Your task to perform on an android device: Search for sushi restaurants on Maps Image 0: 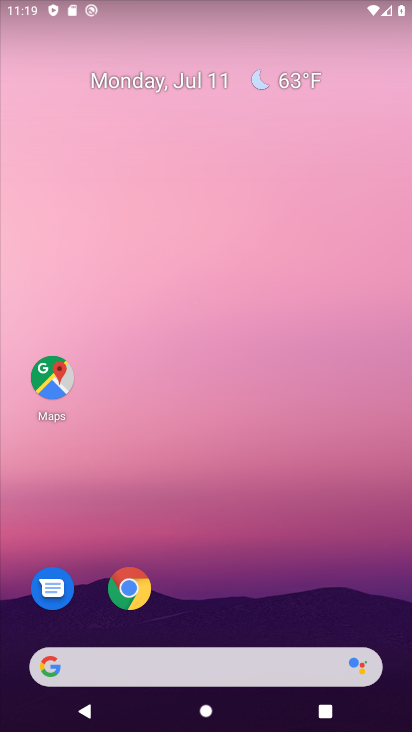
Step 0: drag from (243, 702) to (237, 177)
Your task to perform on an android device: Search for sushi restaurants on Maps Image 1: 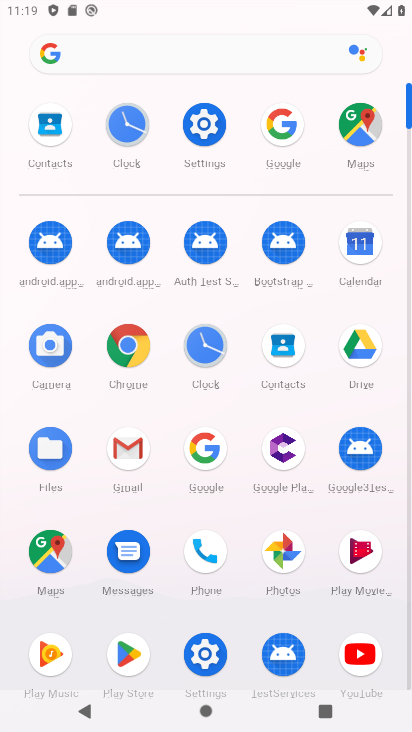
Step 1: click (55, 548)
Your task to perform on an android device: Search for sushi restaurants on Maps Image 2: 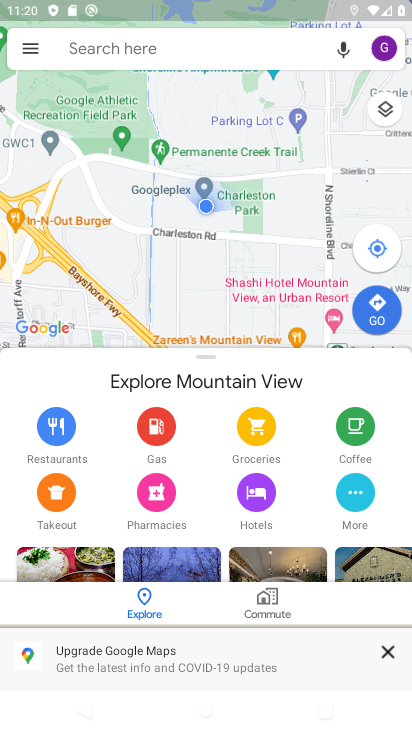
Step 2: click (199, 48)
Your task to perform on an android device: Search for sushi restaurants on Maps Image 3: 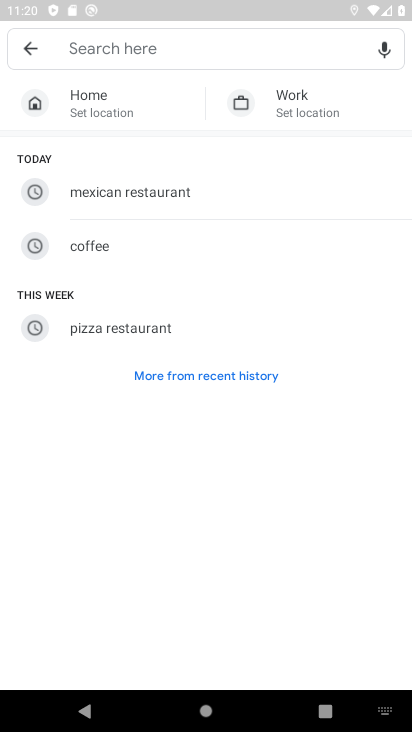
Step 3: type "sushi restaurants"
Your task to perform on an android device: Search for sushi restaurants on Maps Image 4: 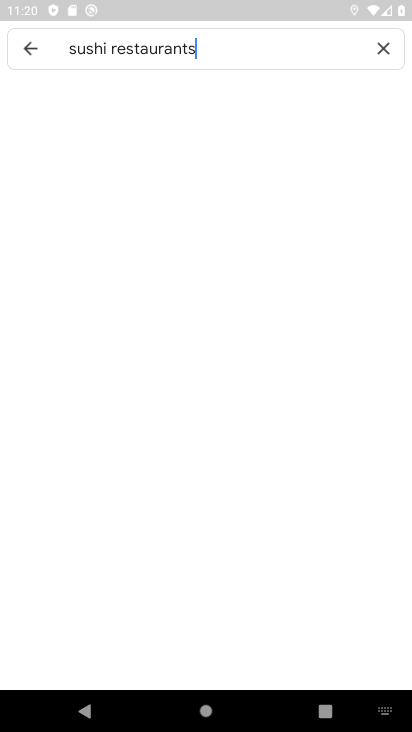
Step 4: type ""
Your task to perform on an android device: Search for sushi restaurants on Maps Image 5: 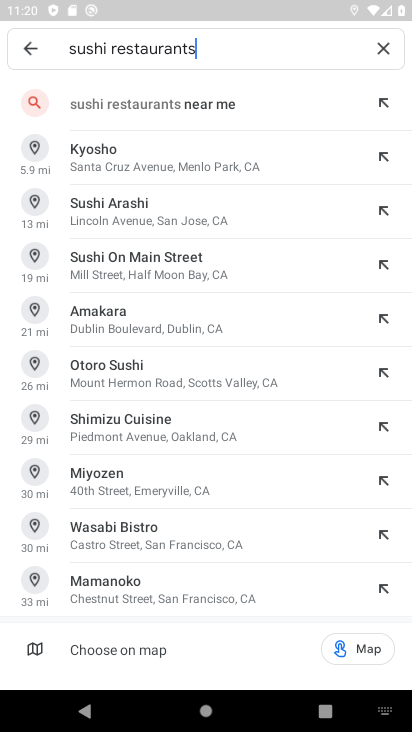
Step 5: click (141, 108)
Your task to perform on an android device: Search for sushi restaurants on Maps Image 6: 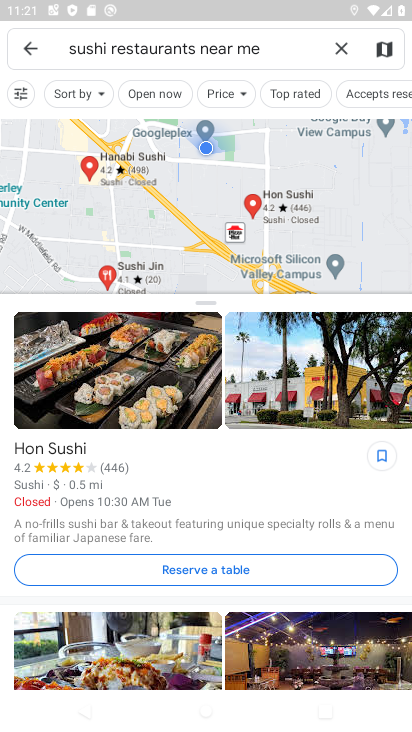
Step 6: task complete